Your task to perform on an android device: Open Yahoo.com Image 0: 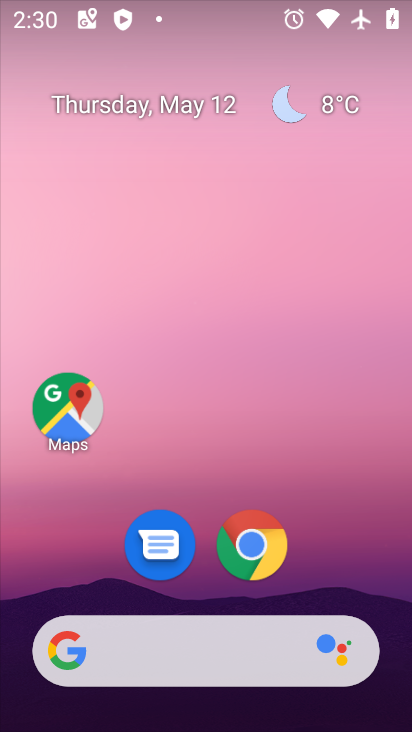
Step 0: click (248, 541)
Your task to perform on an android device: Open Yahoo.com Image 1: 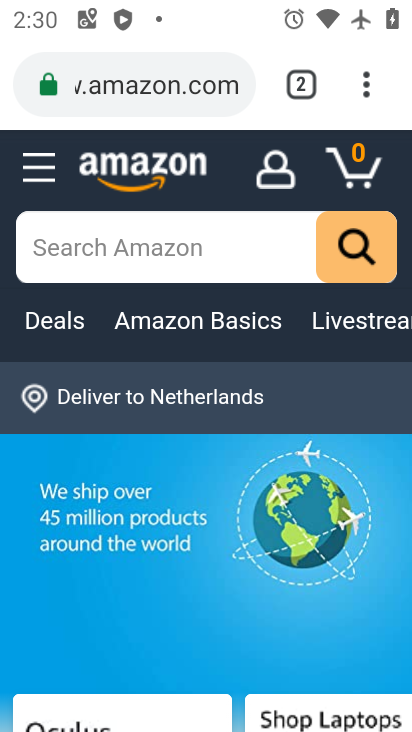
Step 1: click (163, 80)
Your task to perform on an android device: Open Yahoo.com Image 2: 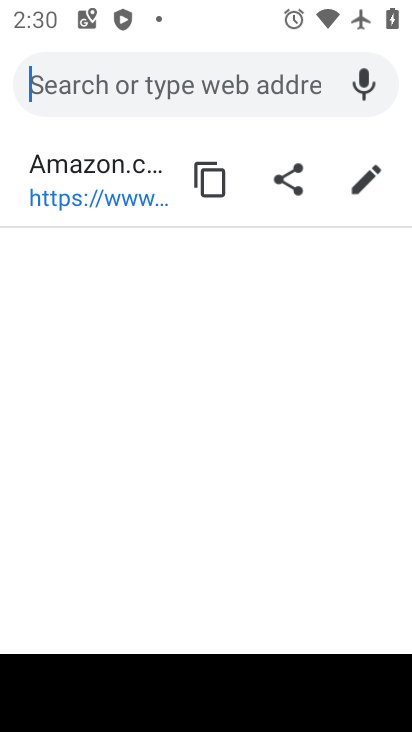
Step 2: type "yahoo.com"
Your task to perform on an android device: Open Yahoo.com Image 3: 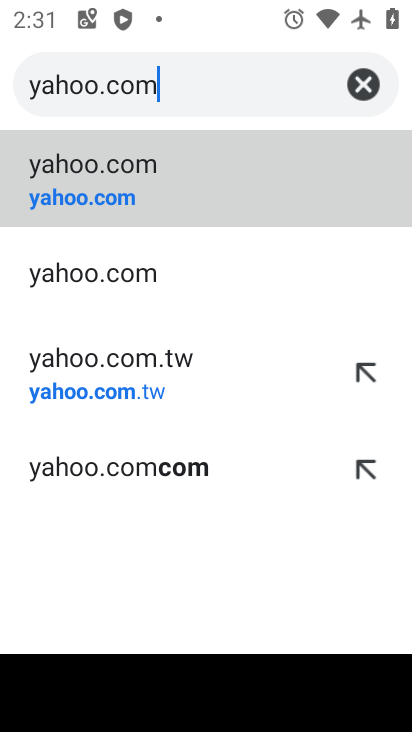
Step 3: click (77, 172)
Your task to perform on an android device: Open Yahoo.com Image 4: 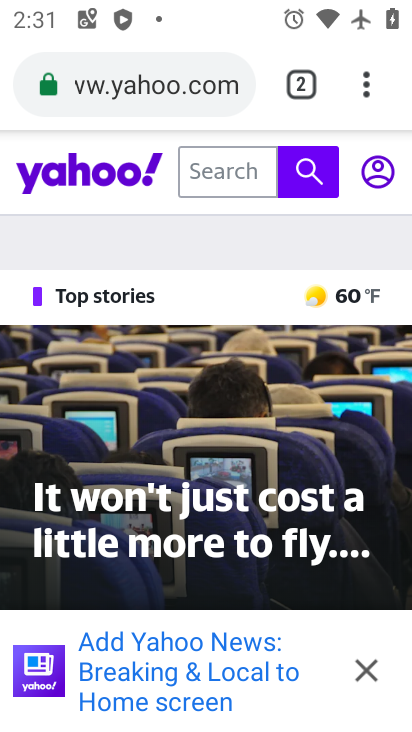
Step 4: task complete